Your task to perform on an android device: Search for bose soundlink on ebay.com, select the first entry, add it to the cart, then select checkout. Image 0: 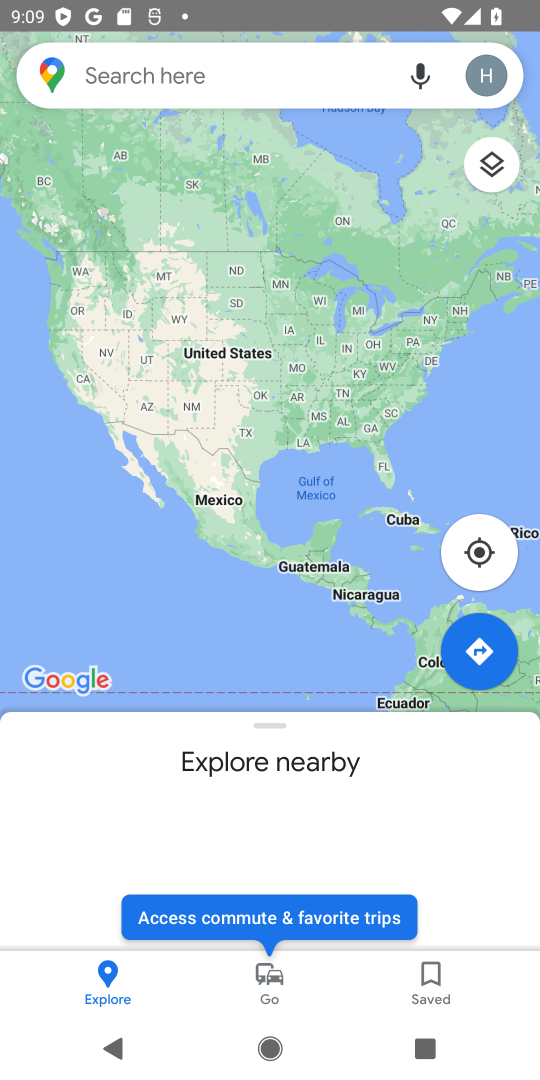
Step 0: press home button
Your task to perform on an android device: Search for bose soundlink on ebay.com, select the first entry, add it to the cart, then select checkout. Image 1: 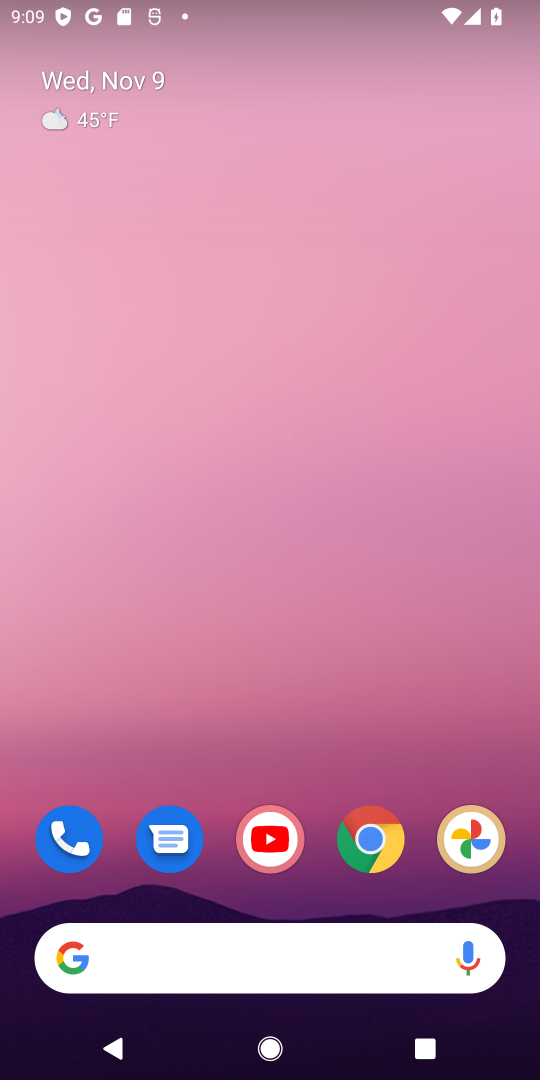
Step 1: drag from (292, 648) to (358, 91)
Your task to perform on an android device: Search for bose soundlink on ebay.com, select the first entry, add it to the cart, then select checkout. Image 2: 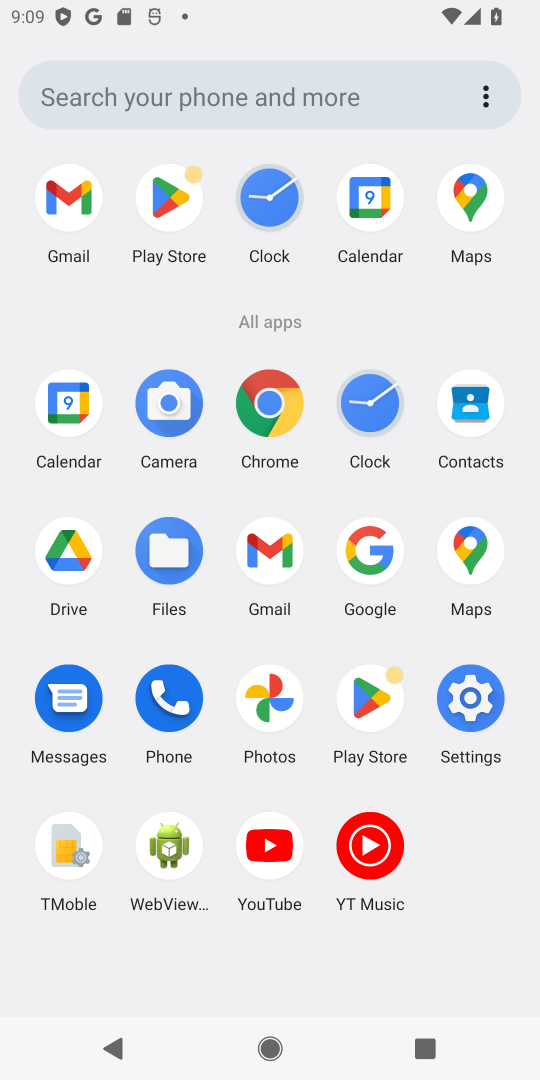
Step 2: click (263, 420)
Your task to perform on an android device: Search for bose soundlink on ebay.com, select the first entry, add it to the cart, then select checkout. Image 3: 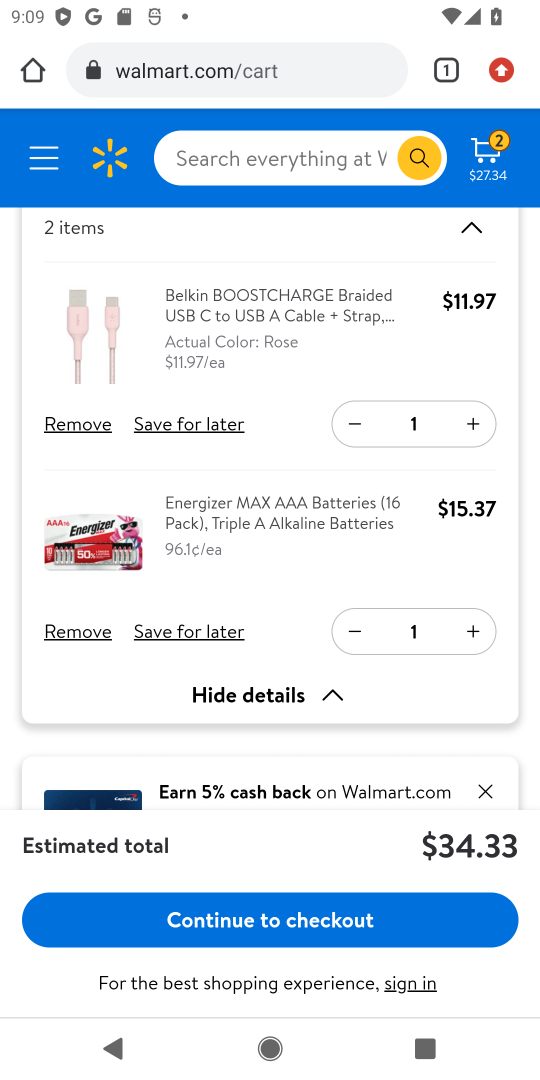
Step 3: click (223, 55)
Your task to perform on an android device: Search for bose soundlink on ebay.com, select the first entry, add it to the cart, then select checkout. Image 4: 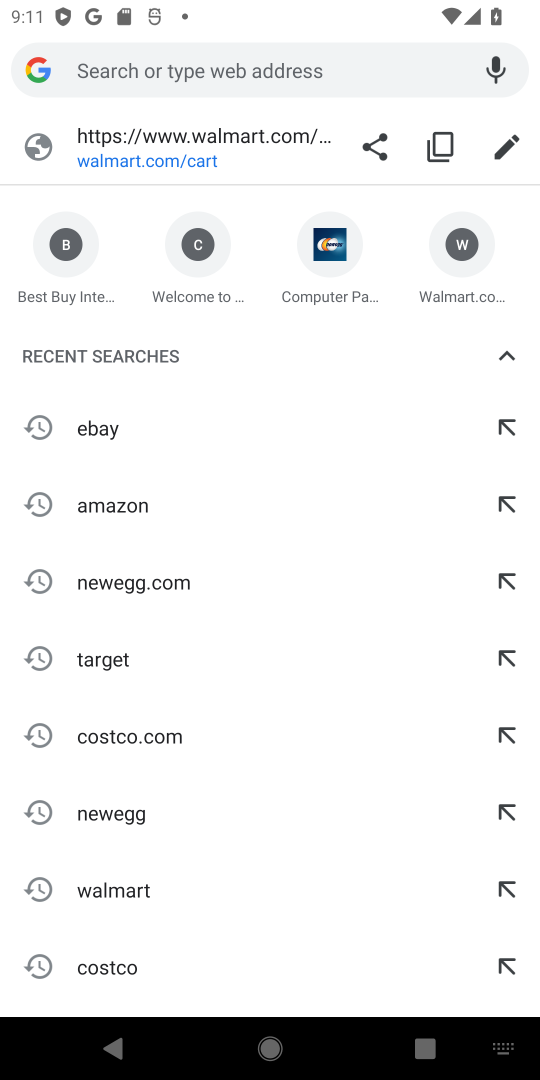
Step 4: type "ebay.com"
Your task to perform on an android device: Search for bose soundlink on ebay.com, select the first entry, add it to the cart, then select checkout. Image 5: 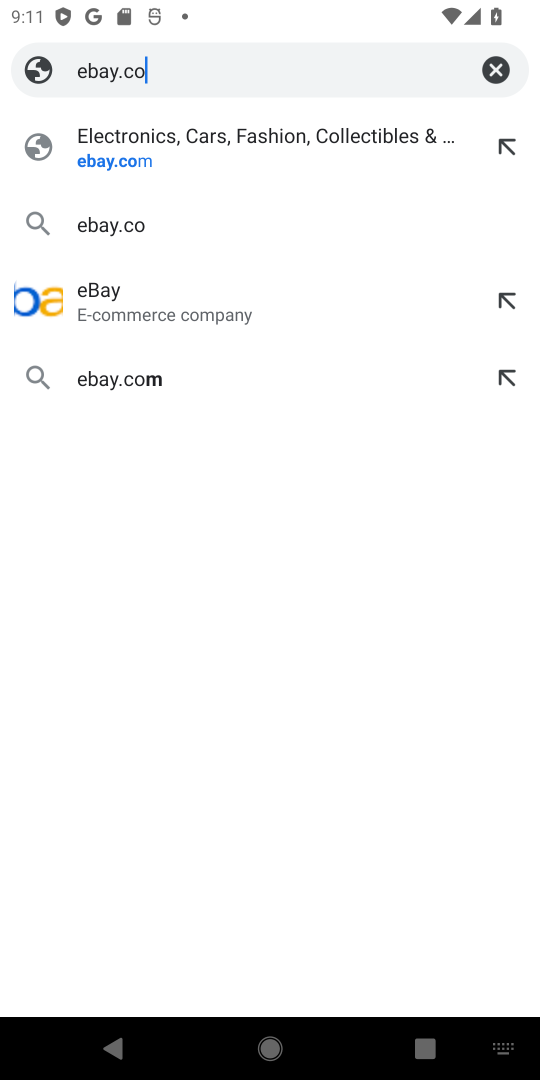
Step 5: press enter
Your task to perform on an android device: Search for bose soundlink on ebay.com, select the first entry, add it to the cart, then select checkout. Image 6: 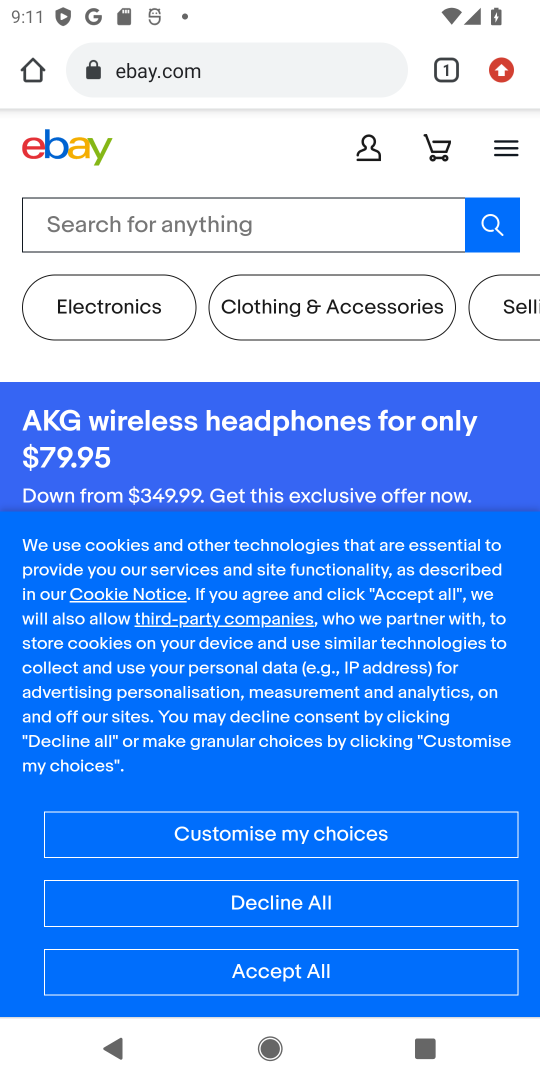
Step 6: click (97, 222)
Your task to perform on an android device: Search for bose soundlink on ebay.com, select the first entry, add it to the cart, then select checkout. Image 7: 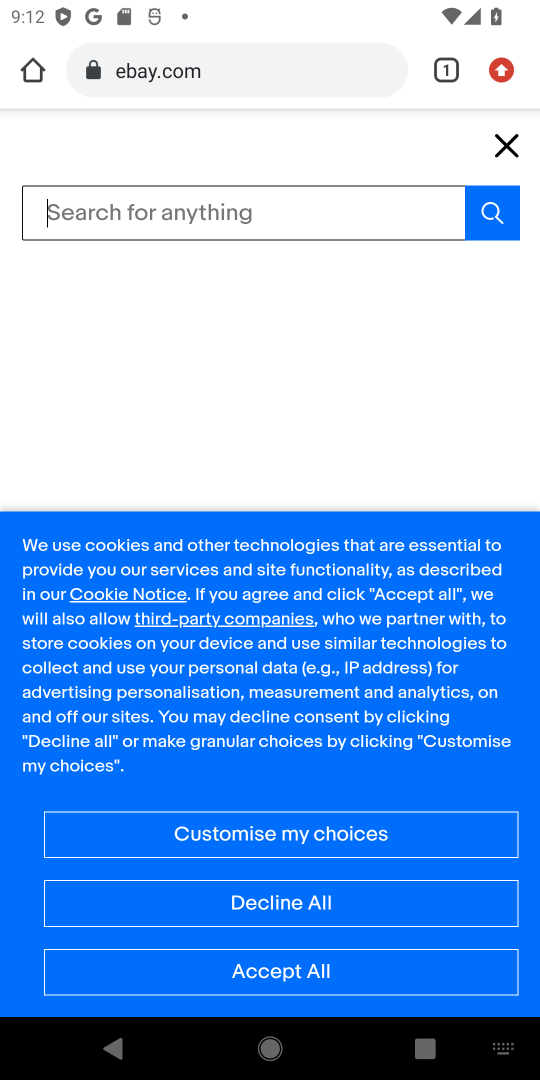
Step 7: type "bose soundlink "
Your task to perform on an android device: Search for bose soundlink on ebay.com, select the first entry, add it to the cart, then select checkout. Image 8: 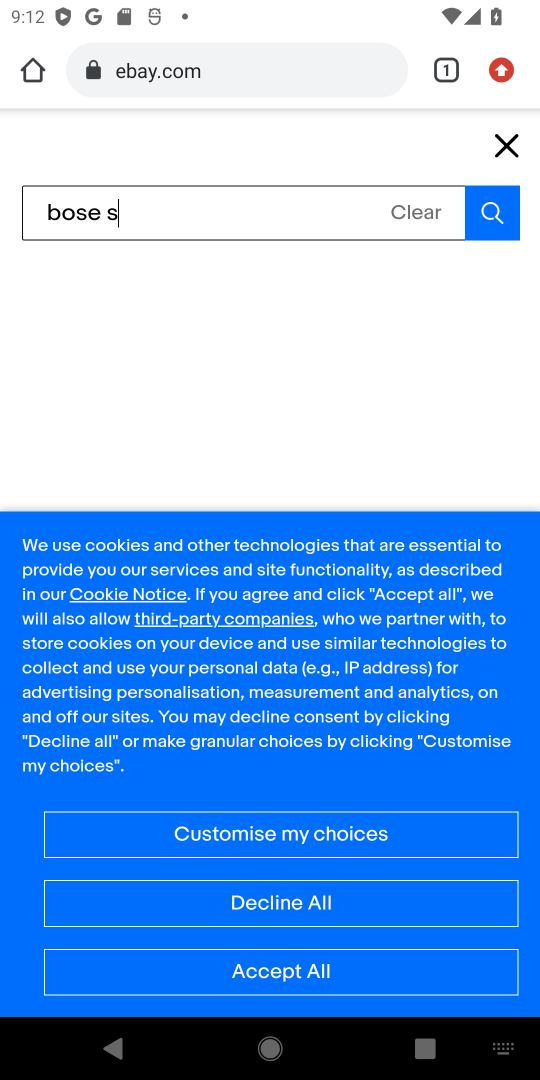
Step 8: press enter
Your task to perform on an android device: Search for bose soundlink on ebay.com, select the first entry, add it to the cart, then select checkout. Image 9: 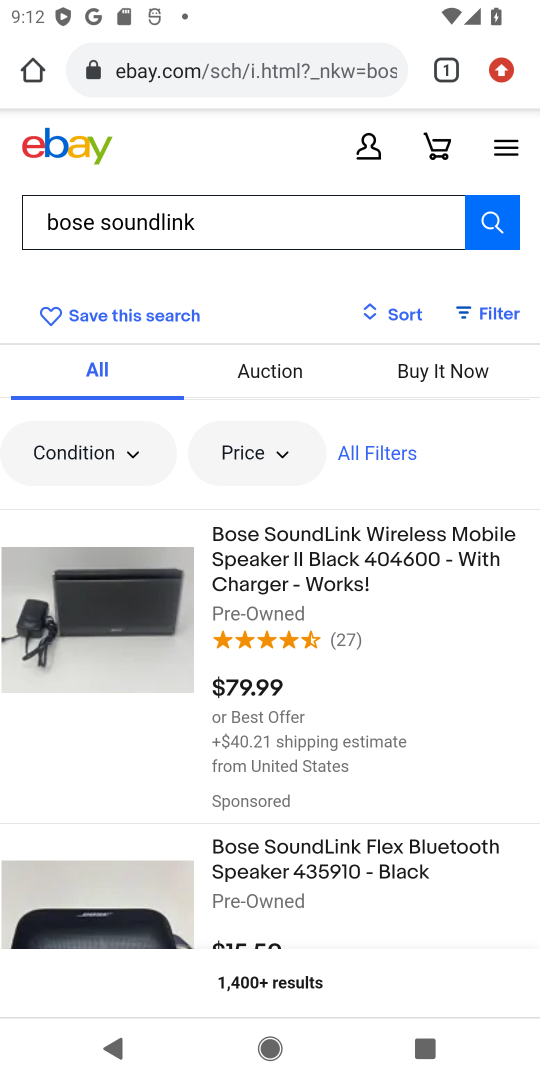
Step 9: click (237, 542)
Your task to perform on an android device: Search for bose soundlink on ebay.com, select the first entry, add it to the cart, then select checkout. Image 10: 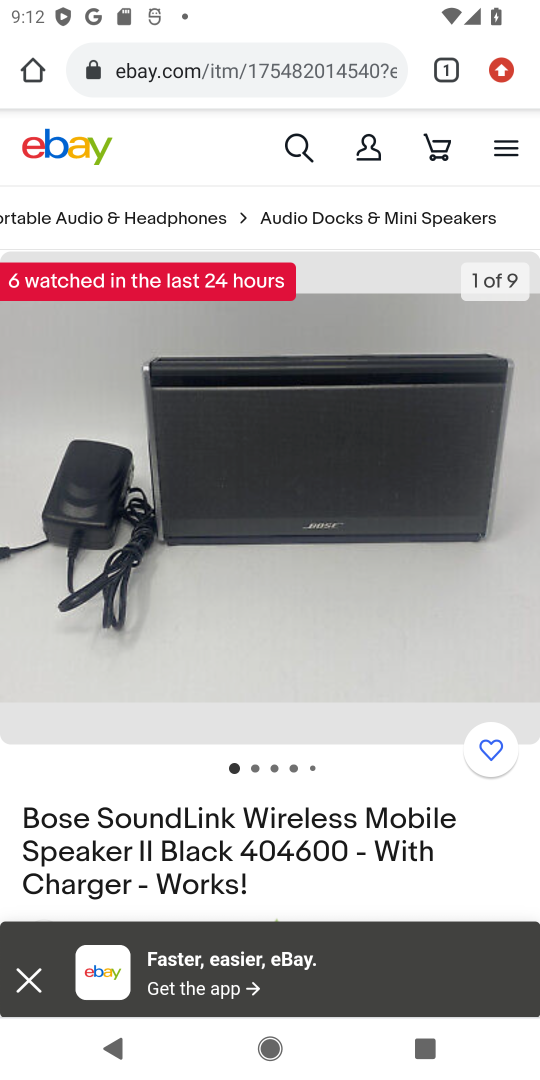
Step 10: drag from (326, 484) to (333, 384)
Your task to perform on an android device: Search for bose soundlink on ebay.com, select the first entry, add it to the cart, then select checkout. Image 11: 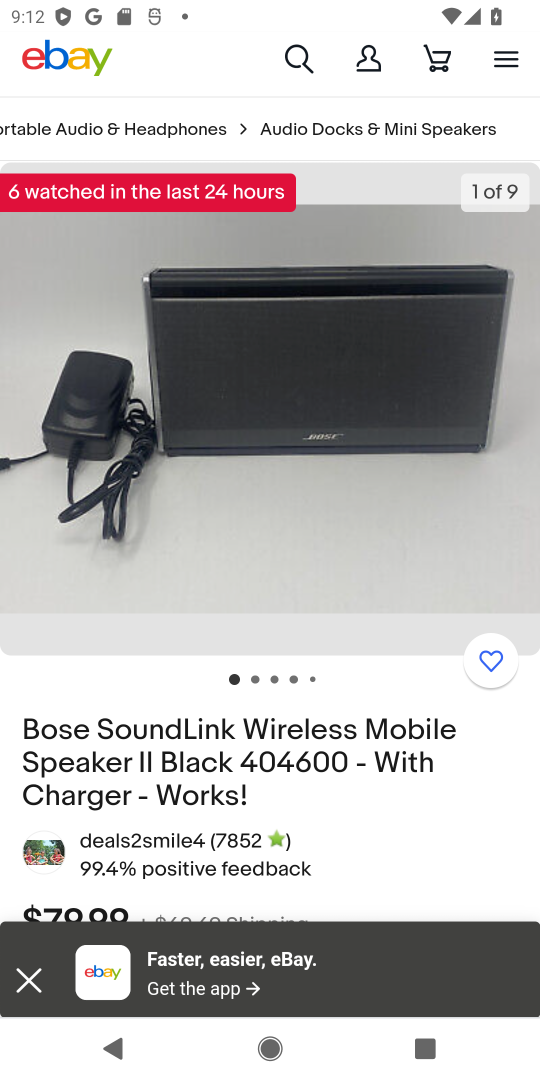
Step 11: drag from (277, 637) to (339, 297)
Your task to perform on an android device: Search for bose soundlink on ebay.com, select the first entry, add it to the cart, then select checkout. Image 12: 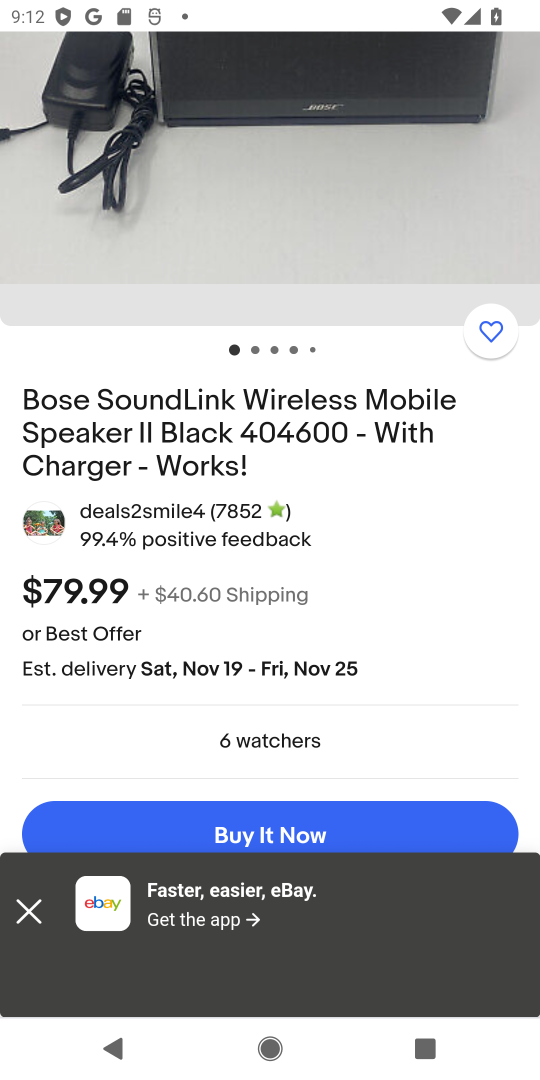
Step 12: drag from (272, 655) to (284, 276)
Your task to perform on an android device: Search for bose soundlink on ebay.com, select the first entry, add it to the cart, then select checkout. Image 13: 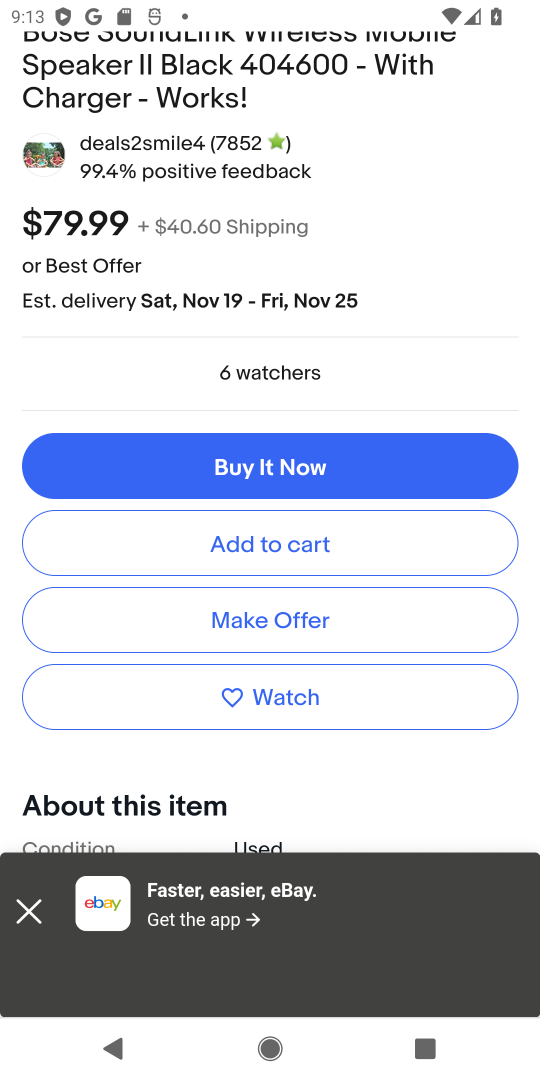
Step 13: click (319, 549)
Your task to perform on an android device: Search for bose soundlink on ebay.com, select the first entry, add it to the cart, then select checkout. Image 14: 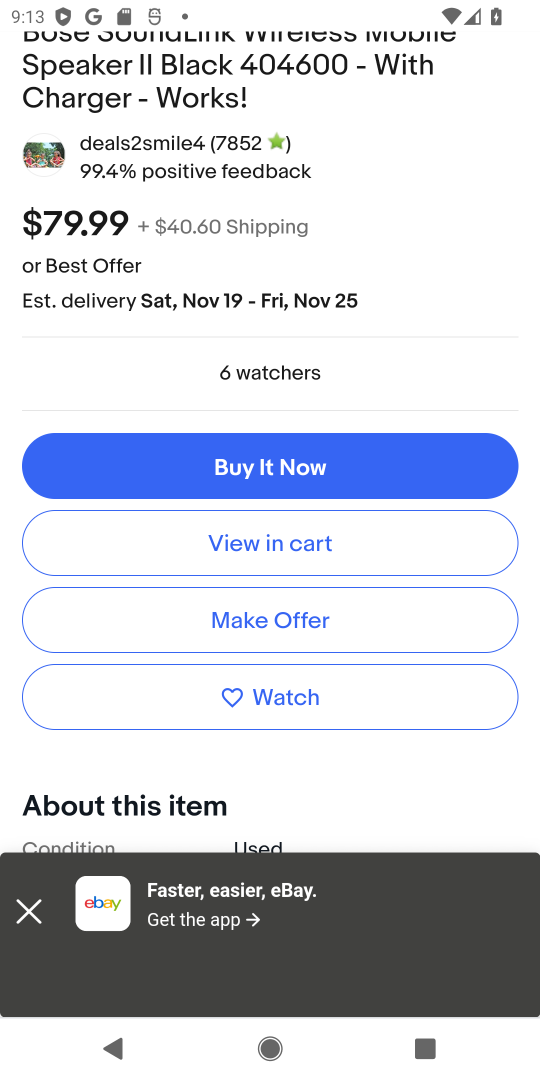
Step 14: click (319, 549)
Your task to perform on an android device: Search for bose soundlink on ebay.com, select the first entry, add it to the cart, then select checkout. Image 15: 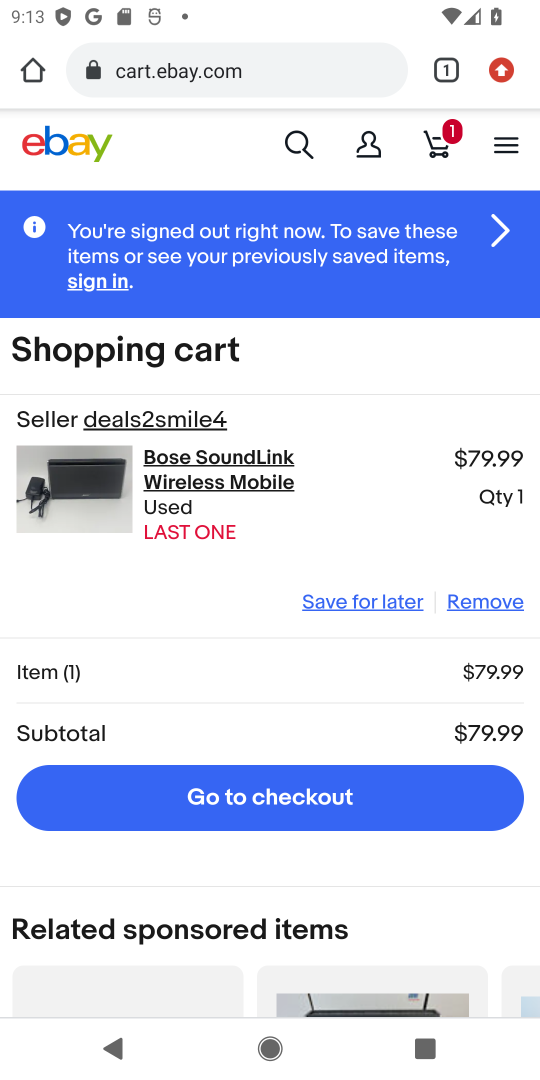
Step 15: click (303, 789)
Your task to perform on an android device: Search for bose soundlink on ebay.com, select the first entry, add it to the cart, then select checkout. Image 16: 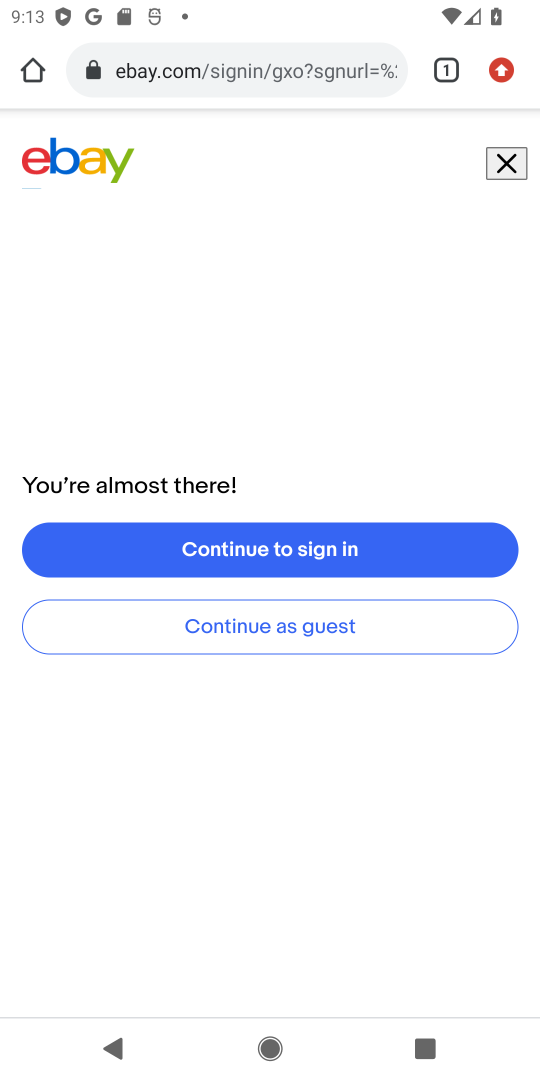
Step 16: task complete